Your task to perform on an android device: toggle show notifications on the lock screen Image 0: 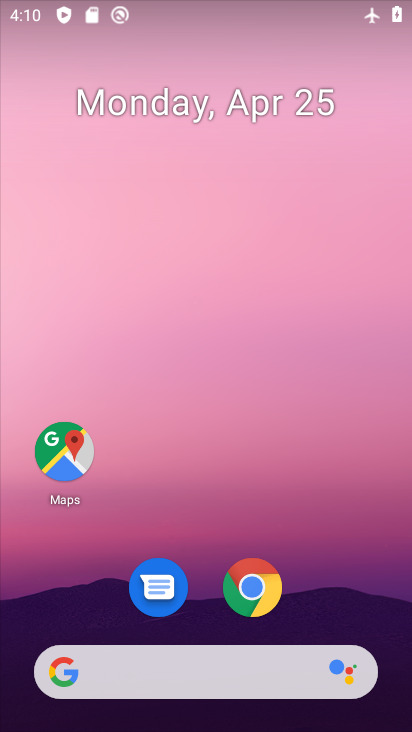
Step 0: click (297, 162)
Your task to perform on an android device: toggle show notifications on the lock screen Image 1: 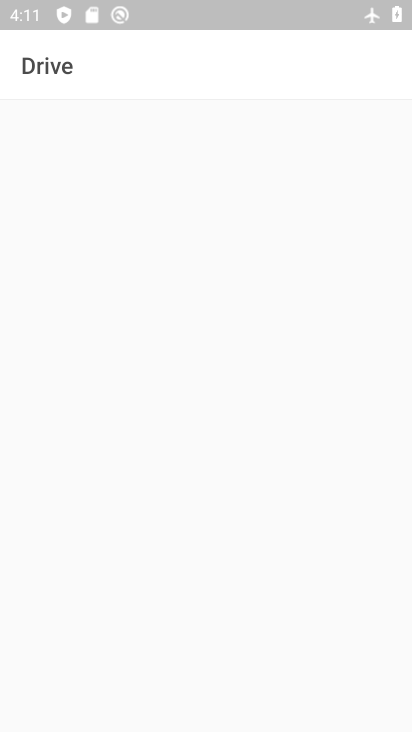
Step 1: press home button
Your task to perform on an android device: toggle show notifications on the lock screen Image 2: 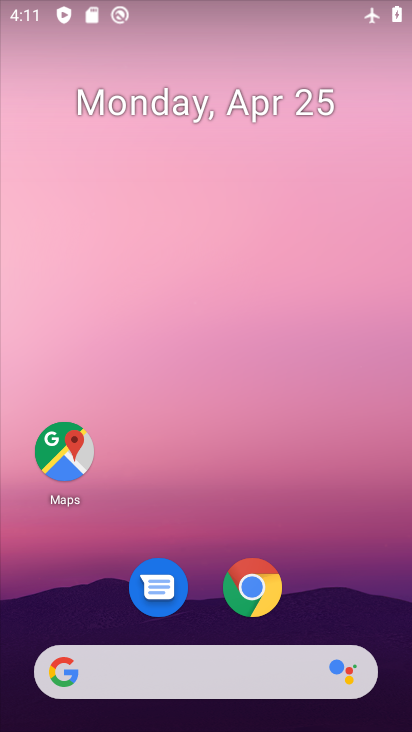
Step 2: drag from (306, 508) to (168, 142)
Your task to perform on an android device: toggle show notifications on the lock screen Image 3: 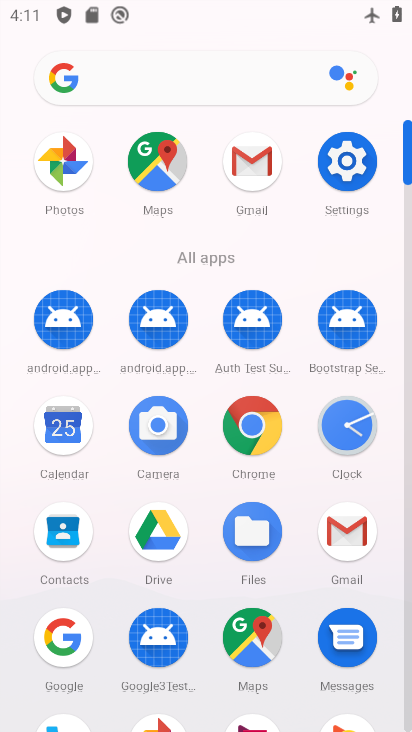
Step 3: click (261, 243)
Your task to perform on an android device: toggle show notifications on the lock screen Image 4: 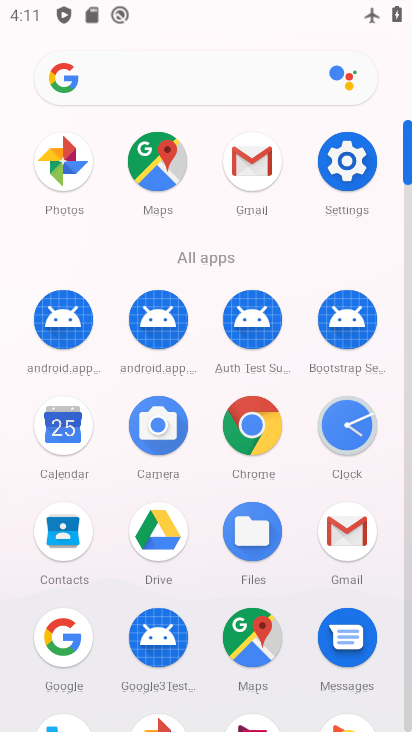
Step 4: click (349, 192)
Your task to perform on an android device: toggle show notifications on the lock screen Image 5: 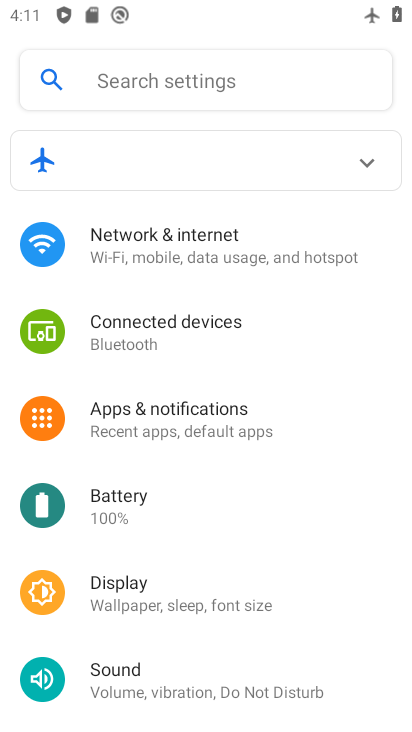
Step 5: click (314, 434)
Your task to perform on an android device: toggle show notifications on the lock screen Image 6: 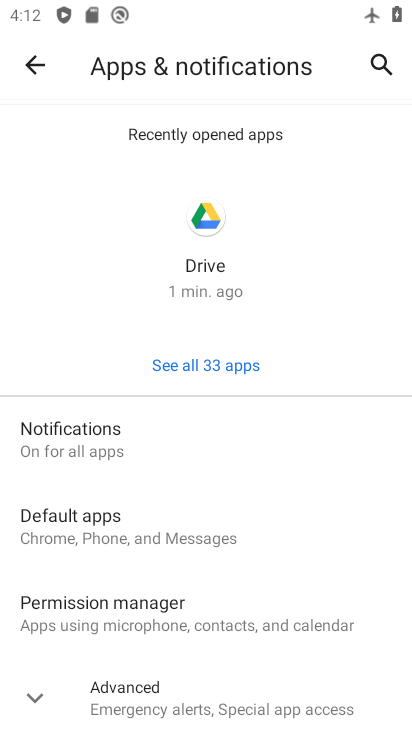
Step 6: click (192, 449)
Your task to perform on an android device: toggle show notifications on the lock screen Image 7: 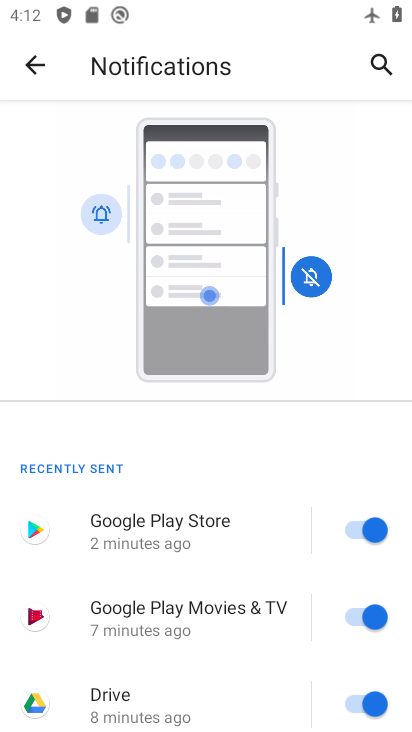
Step 7: drag from (274, 568) to (235, 234)
Your task to perform on an android device: toggle show notifications on the lock screen Image 8: 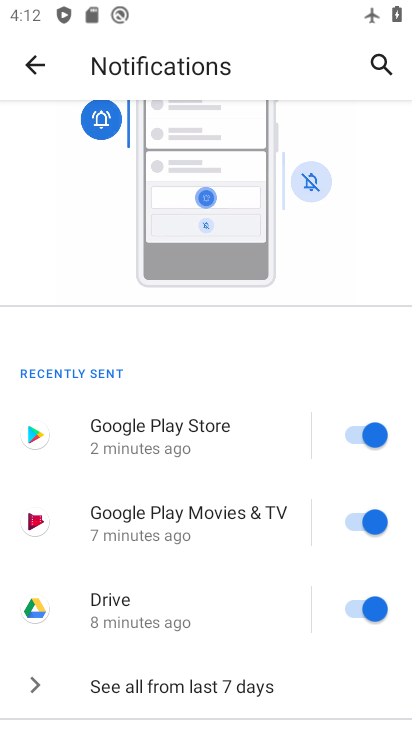
Step 8: drag from (286, 607) to (239, 238)
Your task to perform on an android device: toggle show notifications on the lock screen Image 9: 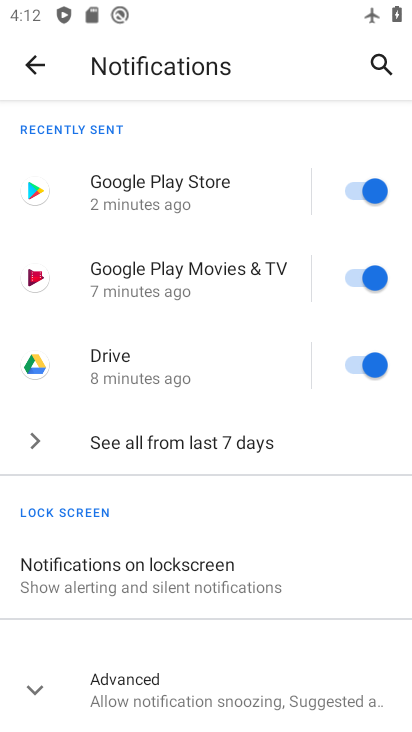
Step 9: drag from (283, 497) to (231, 177)
Your task to perform on an android device: toggle show notifications on the lock screen Image 10: 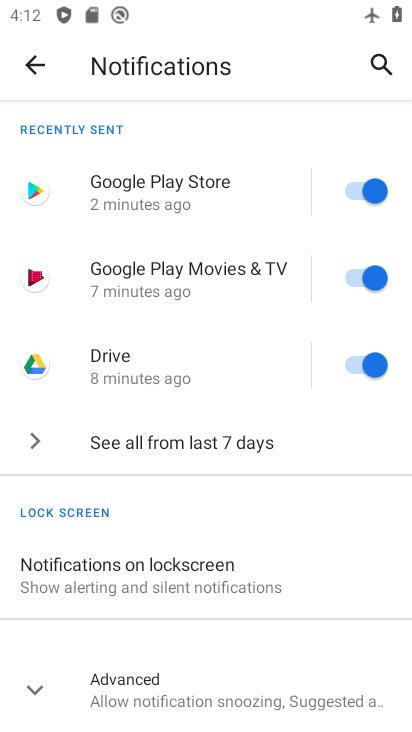
Step 10: click (291, 569)
Your task to perform on an android device: toggle show notifications on the lock screen Image 11: 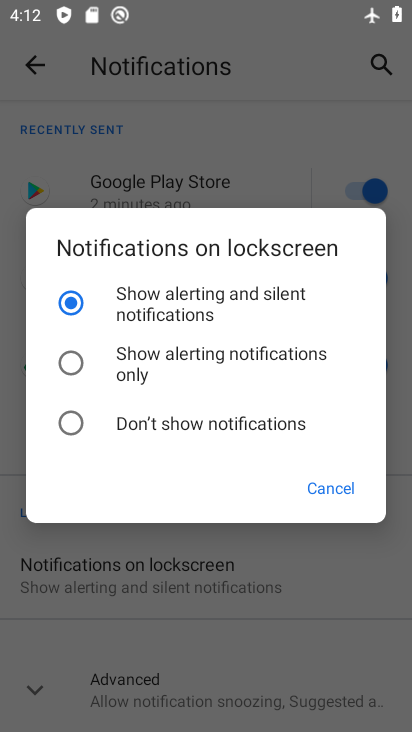
Step 11: click (249, 344)
Your task to perform on an android device: toggle show notifications on the lock screen Image 12: 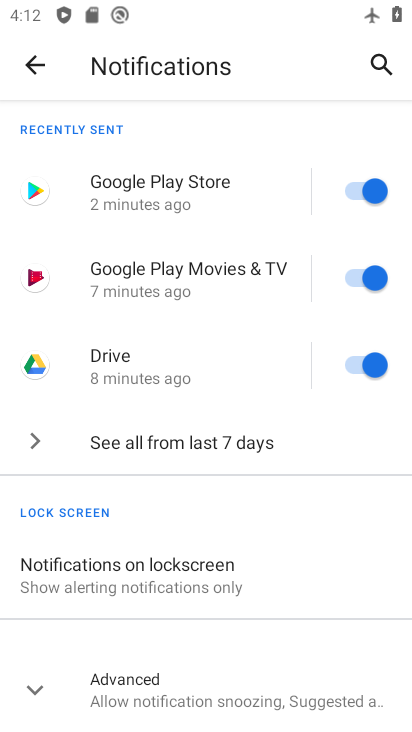
Step 12: task complete